Your task to perform on an android device: Search for Italian restaurants on Maps Image 0: 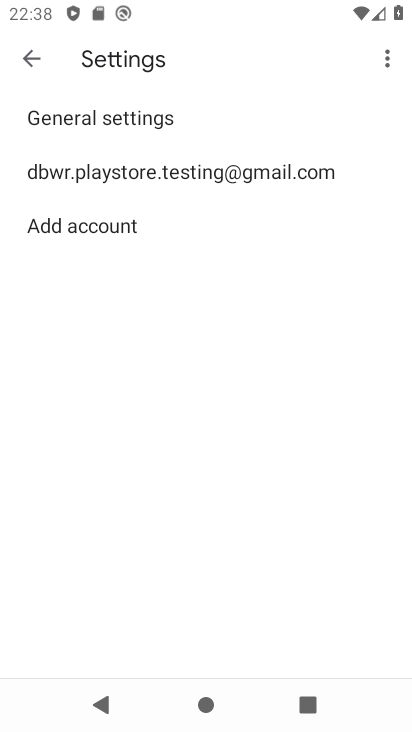
Step 0: press home button
Your task to perform on an android device: Search for Italian restaurants on Maps Image 1: 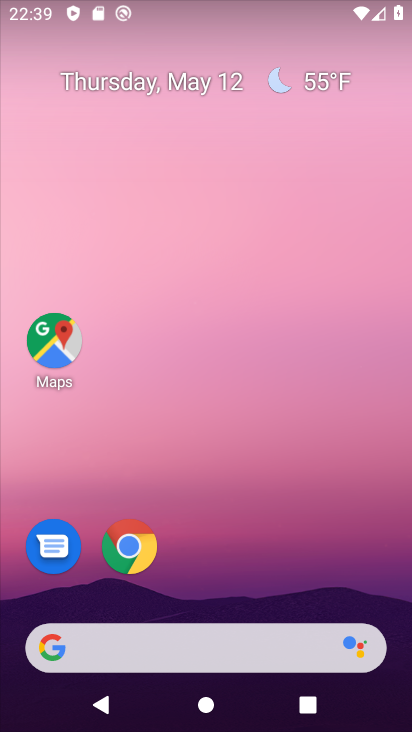
Step 1: click (56, 337)
Your task to perform on an android device: Search for Italian restaurants on Maps Image 2: 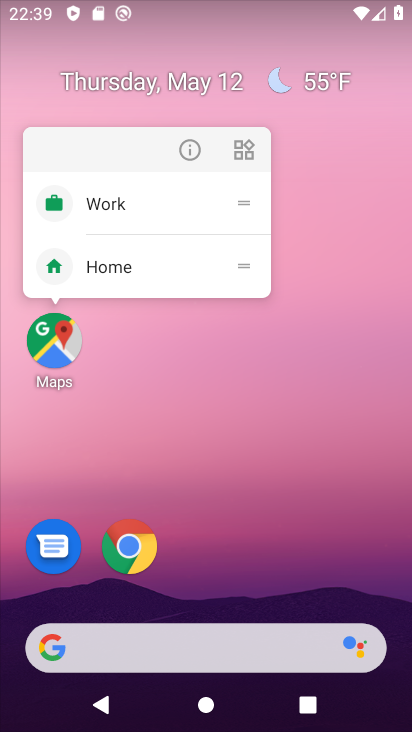
Step 2: click (46, 342)
Your task to perform on an android device: Search for Italian restaurants on Maps Image 3: 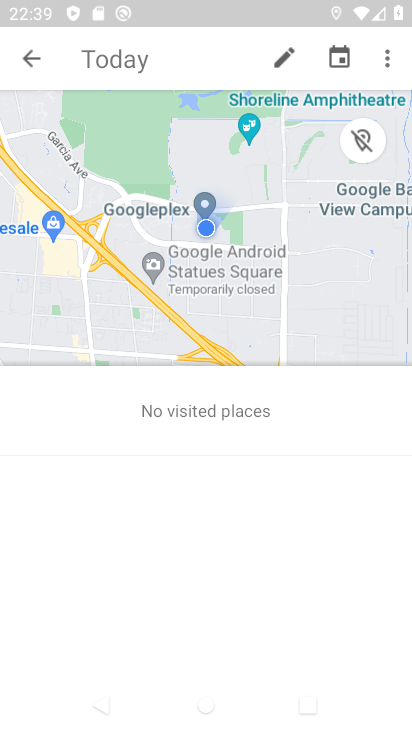
Step 3: click (287, 50)
Your task to perform on an android device: Search for Italian restaurants on Maps Image 4: 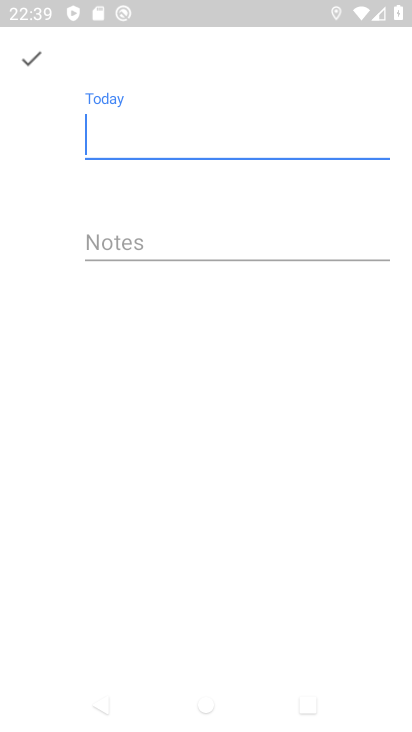
Step 4: click (29, 64)
Your task to perform on an android device: Search for Italian restaurants on Maps Image 5: 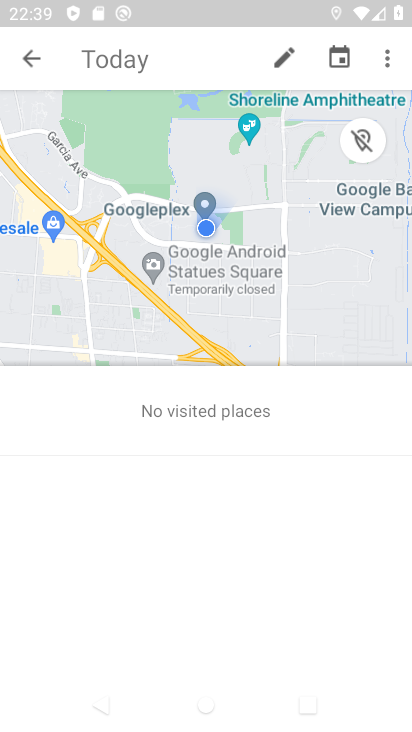
Step 5: click (279, 57)
Your task to perform on an android device: Search for Italian restaurants on Maps Image 6: 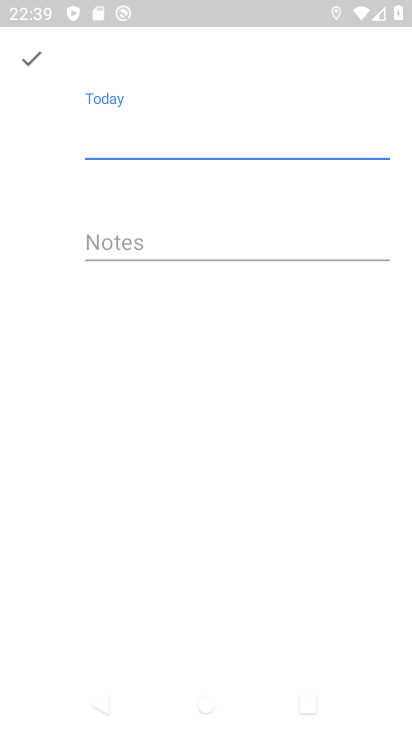
Step 6: click (36, 56)
Your task to perform on an android device: Search for Italian restaurants on Maps Image 7: 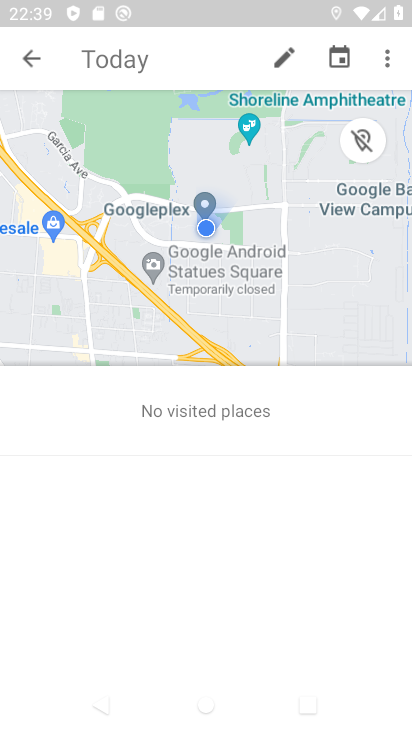
Step 7: click (27, 58)
Your task to perform on an android device: Search for Italian restaurants on Maps Image 8: 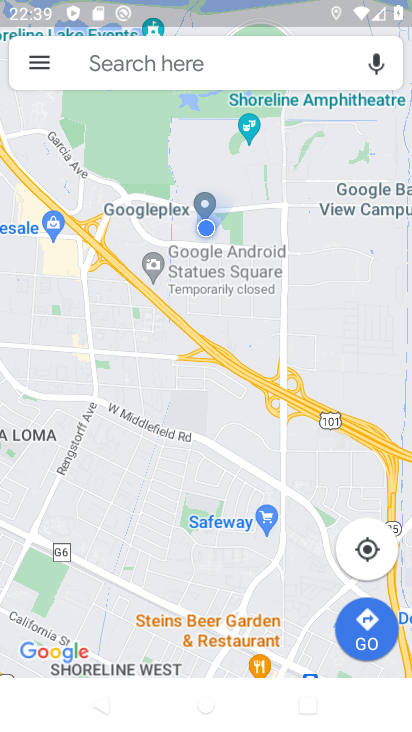
Step 8: click (132, 69)
Your task to perform on an android device: Search for Italian restaurants on Maps Image 9: 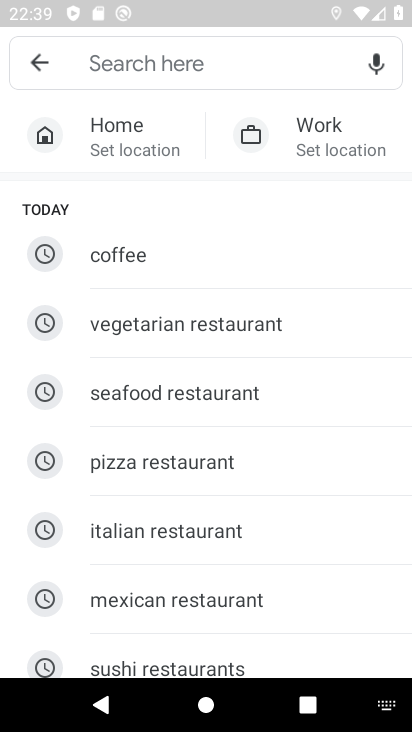
Step 9: type "italian restaurants"
Your task to perform on an android device: Search for Italian restaurants on Maps Image 10: 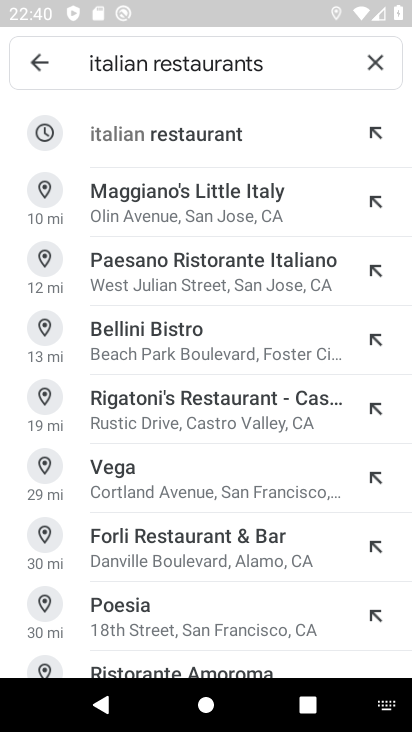
Step 10: click (176, 138)
Your task to perform on an android device: Search for Italian restaurants on Maps Image 11: 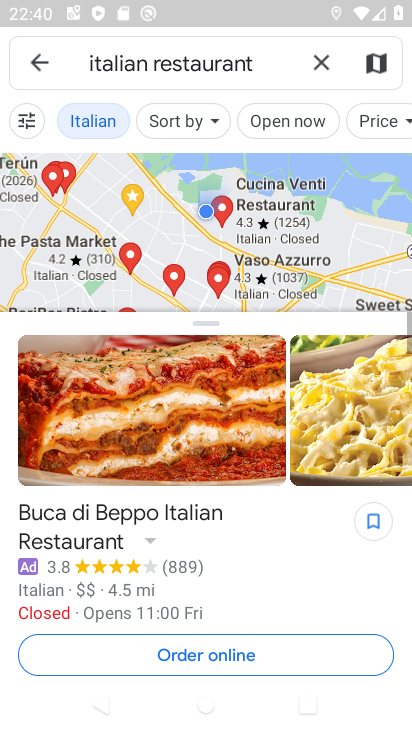
Step 11: task complete